Your task to perform on an android device: Open sound settings Image 0: 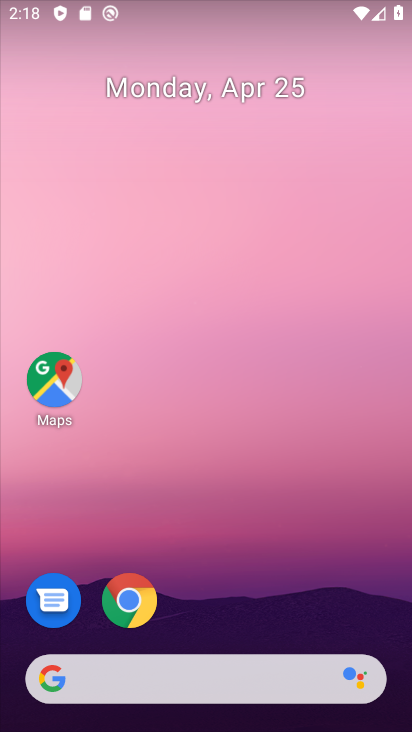
Step 0: click (344, 152)
Your task to perform on an android device: Open sound settings Image 1: 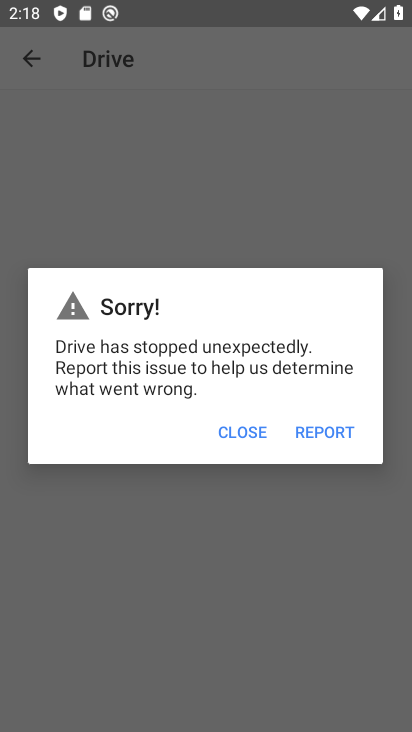
Step 1: press home button
Your task to perform on an android device: Open sound settings Image 2: 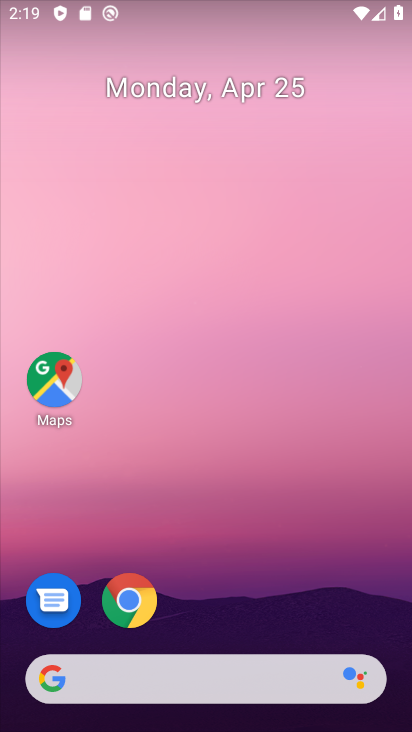
Step 2: drag from (395, 596) to (335, 165)
Your task to perform on an android device: Open sound settings Image 3: 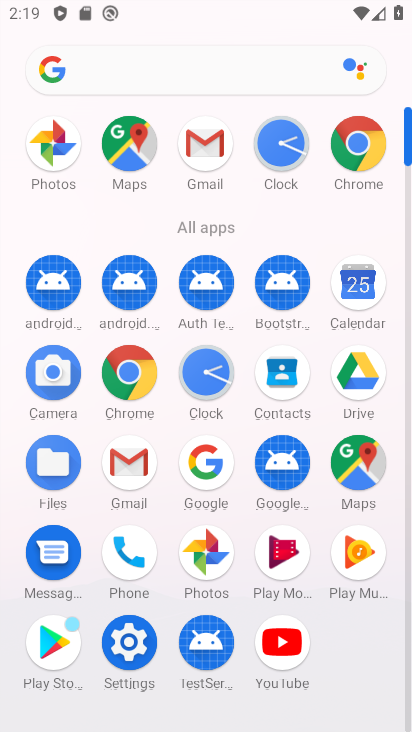
Step 3: click (128, 643)
Your task to perform on an android device: Open sound settings Image 4: 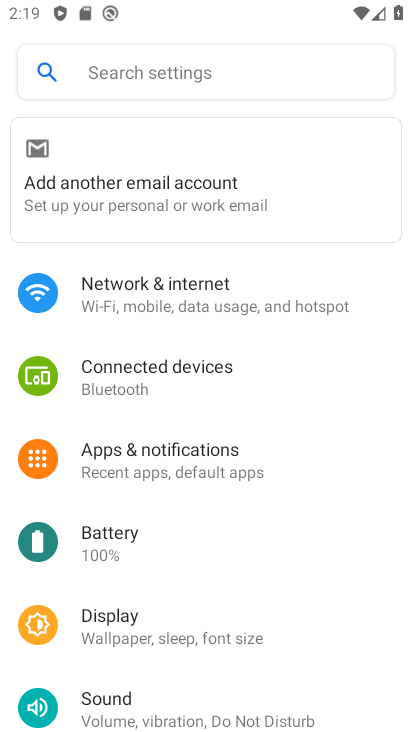
Step 4: drag from (281, 574) to (296, 246)
Your task to perform on an android device: Open sound settings Image 5: 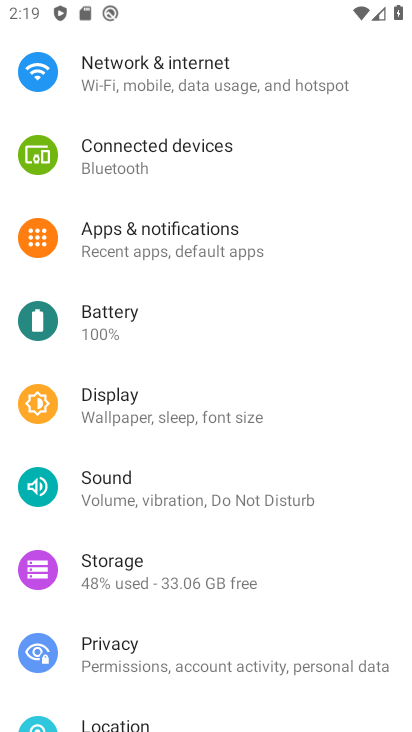
Step 5: drag from (307, 626) to (298, 270)
Your task to perform on an android device: Open sound settings Image 6: 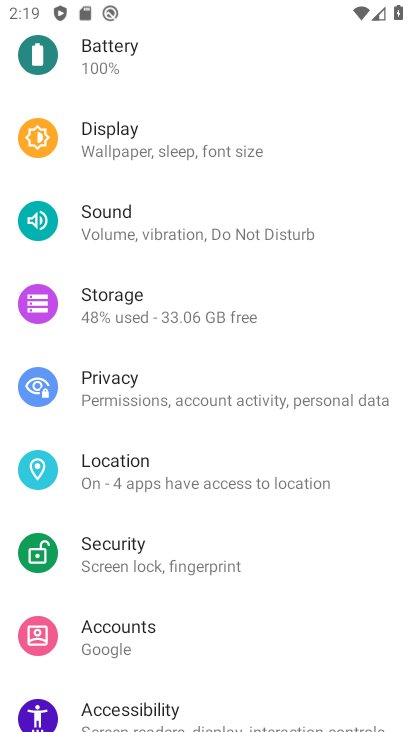
Step 6: click (120, 207)
Your task to perform on an android device: Open sound settings Image 7: 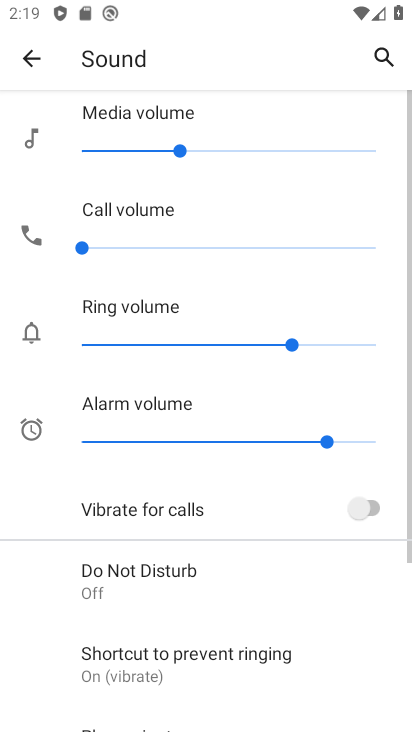
Step 7: task complete